Your task to perform on an android device: Check the weather Image 0: 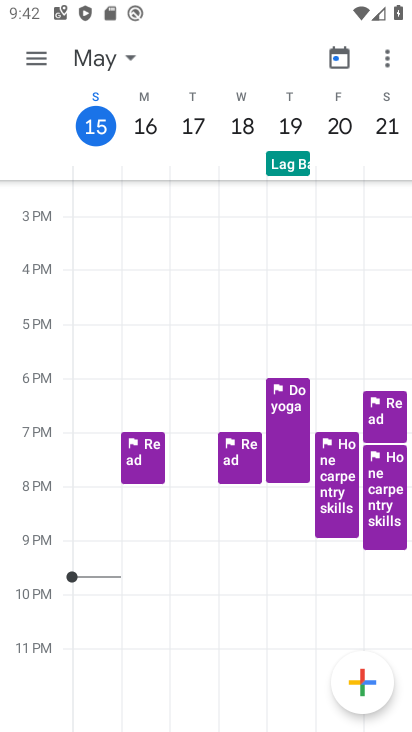
Step 0: press home button
Your task to perform on an android device: Check the weather Image 1: 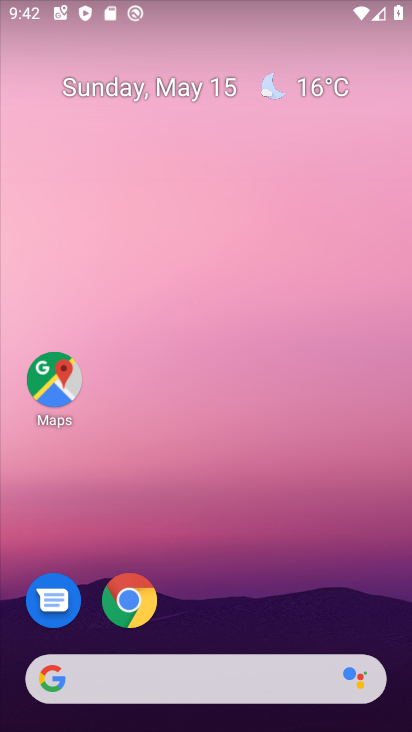
Step 1: click (237, 659)
Your task to perform on an android device: Check the weather Image 2: 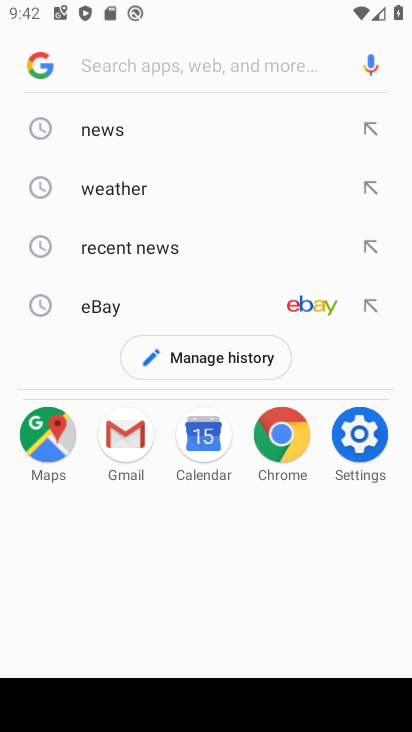
Step 2: click (145, 194)
Your task to perform on an android device: Check the weather Image 3: 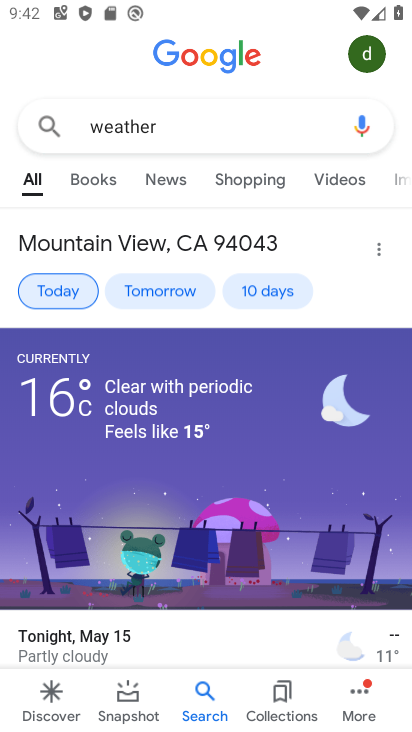
Step 3: task complete